Your task to perform on an android device: change the clock display to analog Image 0: 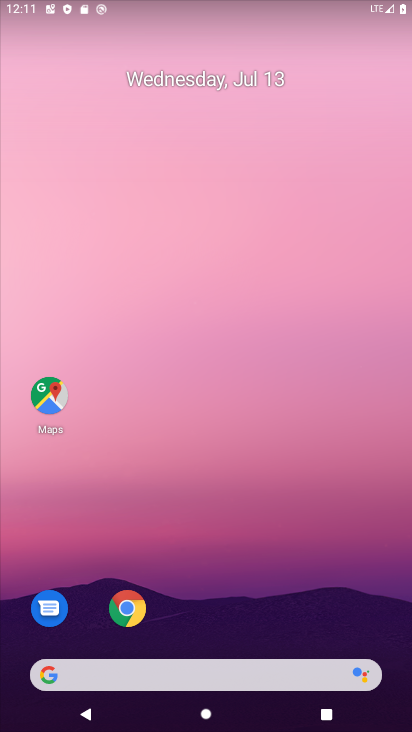
Step 0: drag from (213, 612) to (306, 3)
Your task to perform on an android device: change the clock display to analog Image 1: 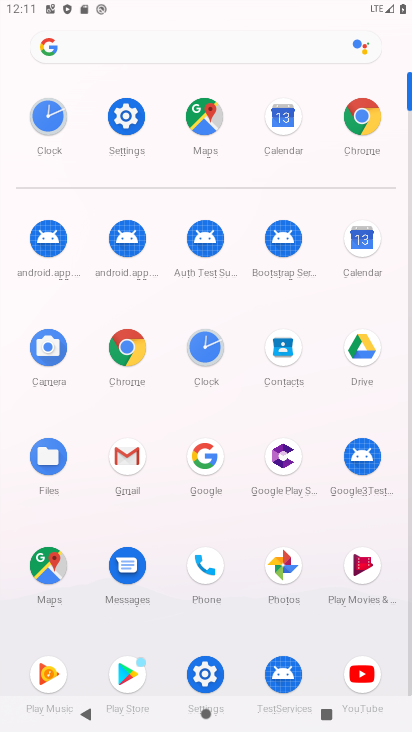
Step 1: click (198, 344)
Your task to perform on an android device: change the clock display to analog Image 2: 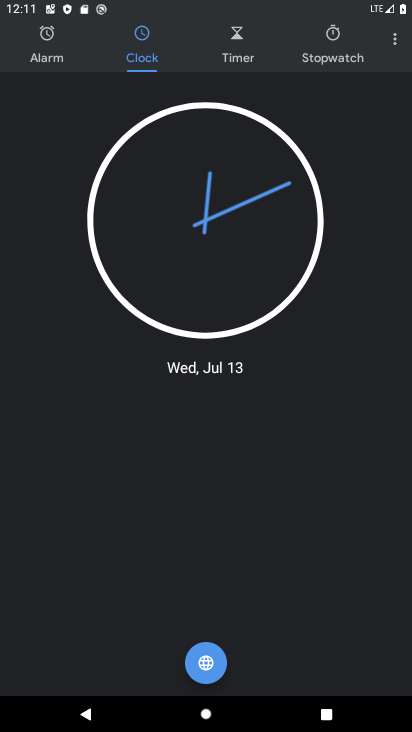
Step 2: click (401, 36)
Your task to perform on an android device: change the clock display to analog Image 3: 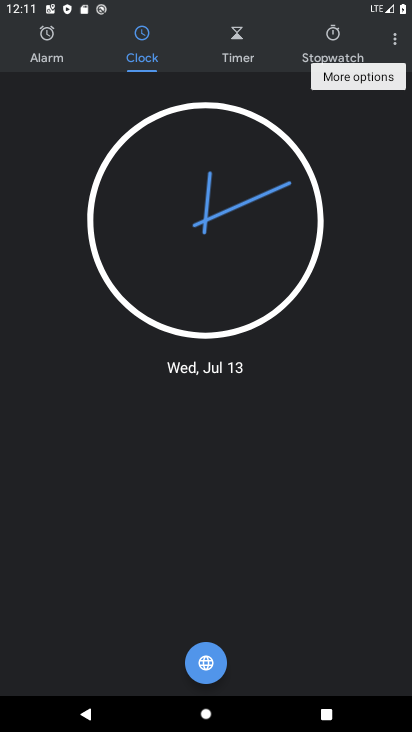
Step 3: click (397, 40)
Your task to perform on an android device: change the clock display to analog Image 4: 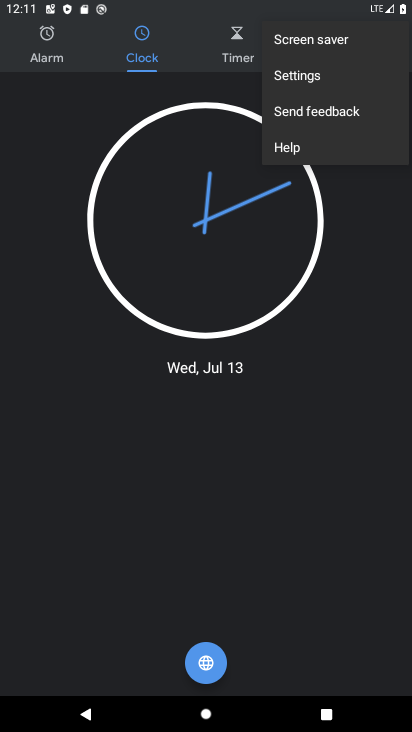
Step 4: click (322, 78)
Your task to perform on an android device: change the clock display to analog Image 5: 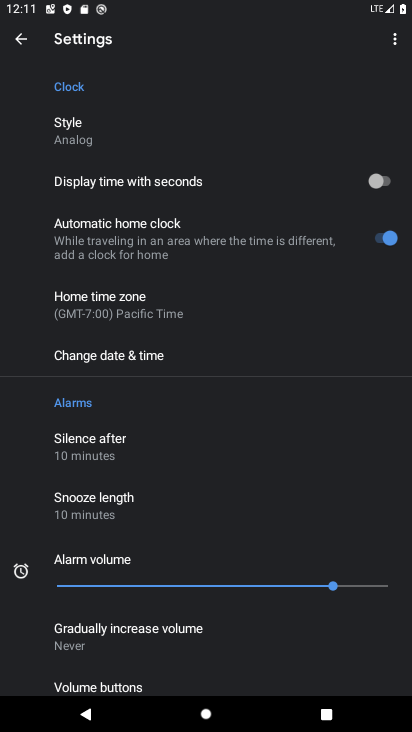
Step 5: click (95, 125)
Your task to perform on an android device: change the clock display to analog Image 6: 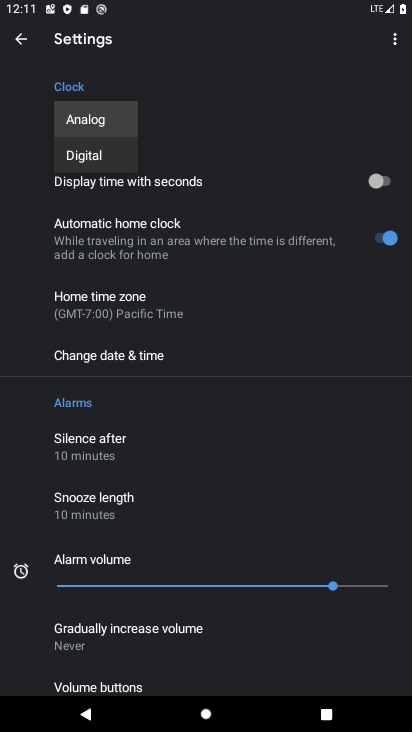
Step 6: click (95, 123)
Your task to perform on an android device: change the clock display to analog Image 7: 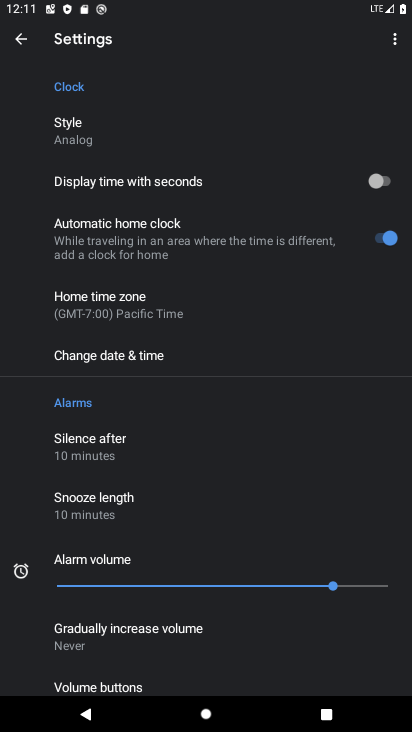
Step 7: task complete